Your task to perform on an android device: When is my next appointment? Image 0: 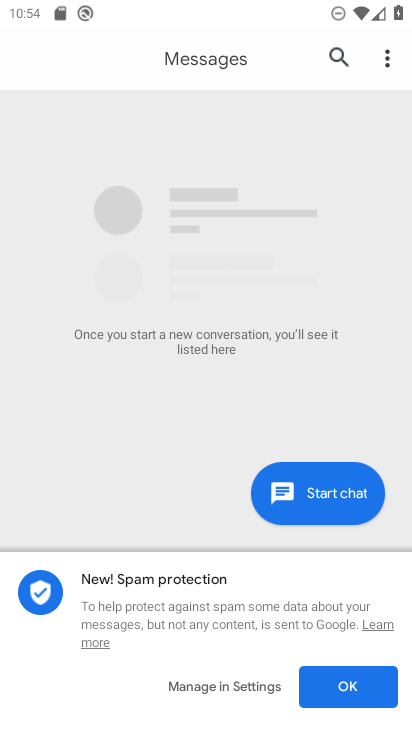
Step 0: press back button
Your task to perform on an android device: When is my next appointment? Image 1: 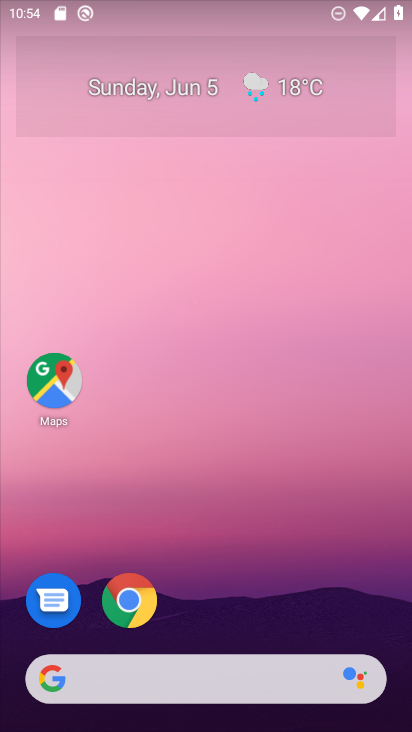
Step 1: drag from (196, 640) to (274, 94)
Your task to perform on an android device: When is my next appointment? Image 2: 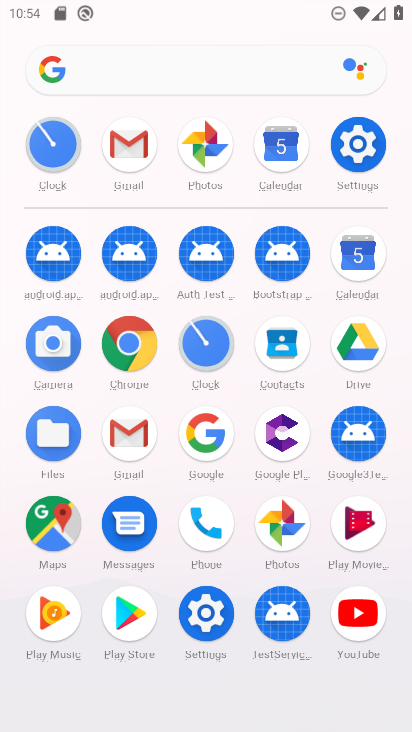
Step 2: click (364, 255)
Your task to perform on an android device: When is my next appointment? Image 3: 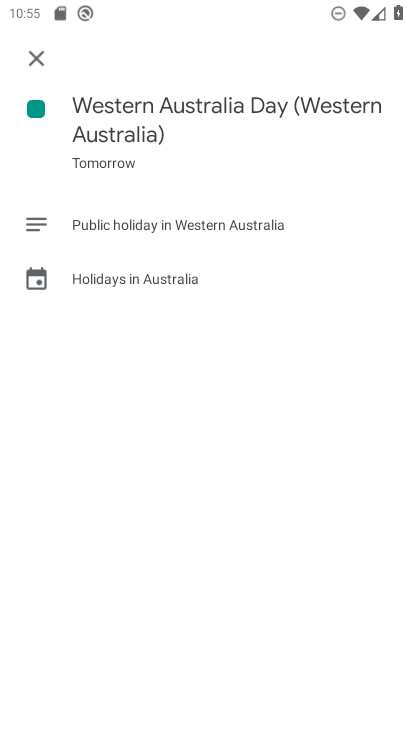
Step 3: click (28, 55)
Your task to perform on an android device: When is my next appointment? Image 4: 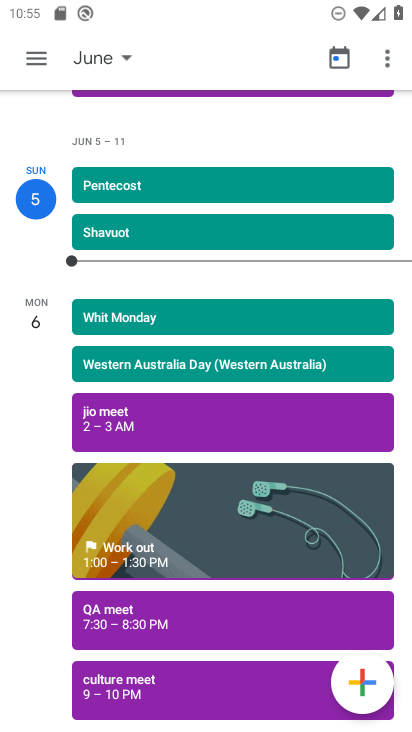
Step 4: drag from (204, 189) to (296, 181)
Your task to perform on an android device: When is my next appointment? Image 5: 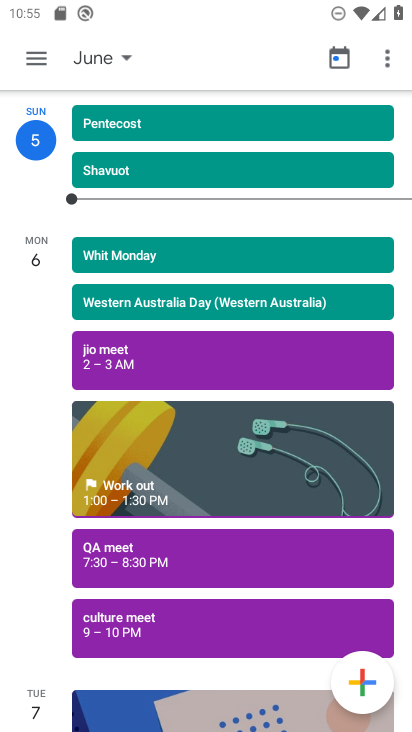
Step 5: click (114, 574)
Your task to perform on an android device: When is my next appointment? Image 6: 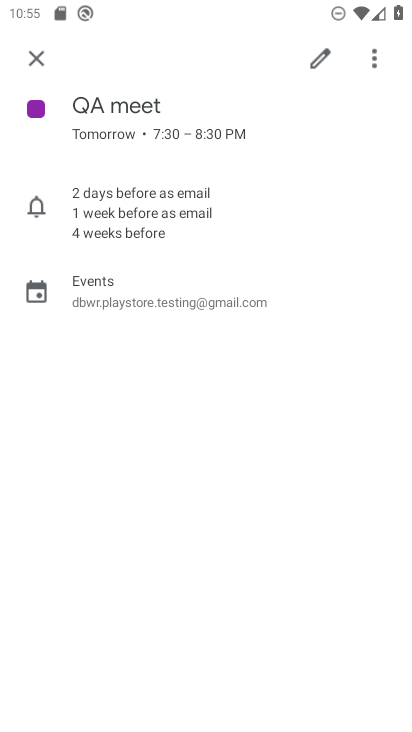
Step 6: task complete